Your task to perform on an android device: remove spam from my inbox in the gmail app Image 0: 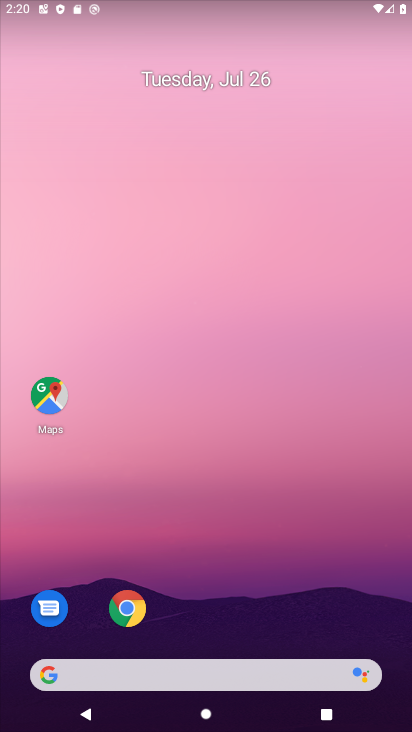
Step 0: task complete